Your task to perform on an android device: Open calendar and show me the third week of next month Image 0: 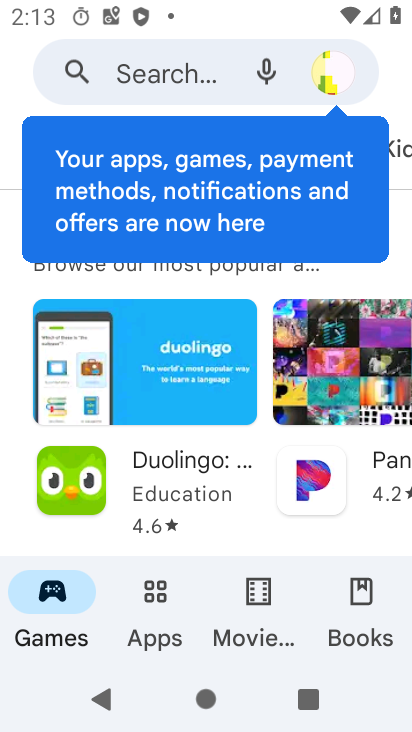
Step 0: press home button
Your task to perform on an android device: Open calendar and show me the third week of next month Image 1: 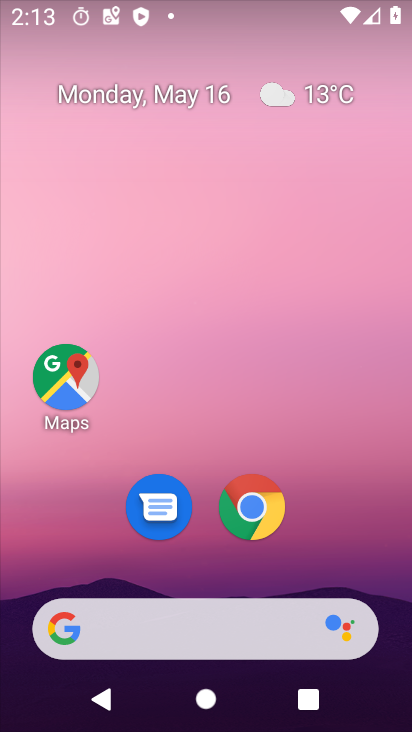
Step 1: drag from (379, 538) to (379, 108)
Your task to perform on an android device: Open calendar and show me the third week of next month Image 2: 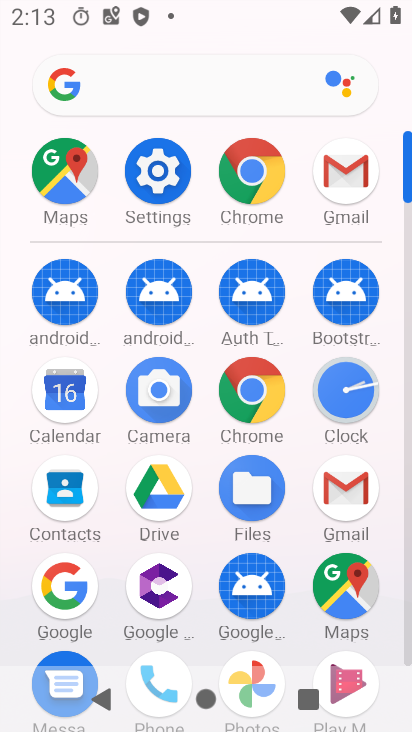
Step 2: click (52, 416)
Your task to perform on an android device: Open calendar and show me the third week of next month Image 3: 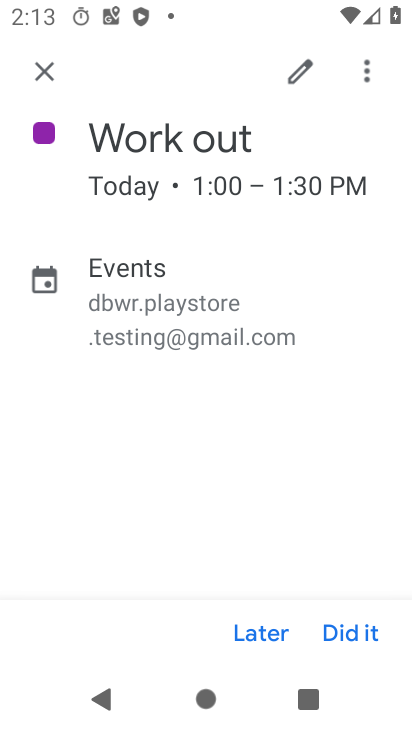
Step 3: click (45, 78)
Your task to perform on an android device: Open calendar and show me the third week of next month Image 4: 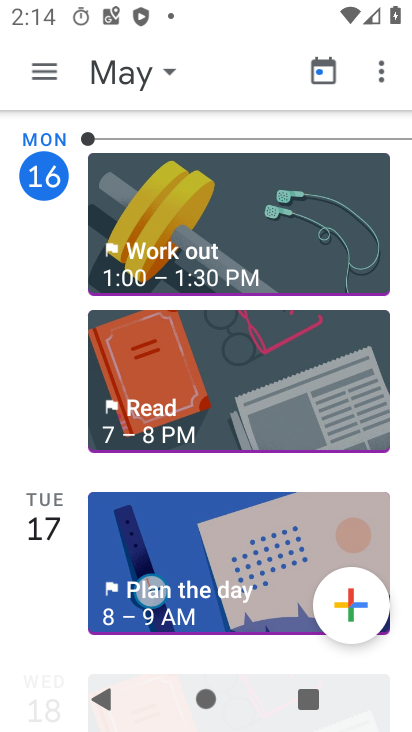
Step 4: click (165, 77)
Your task to perform on an android device: Open calendar and show me the third week of next month Image 5: 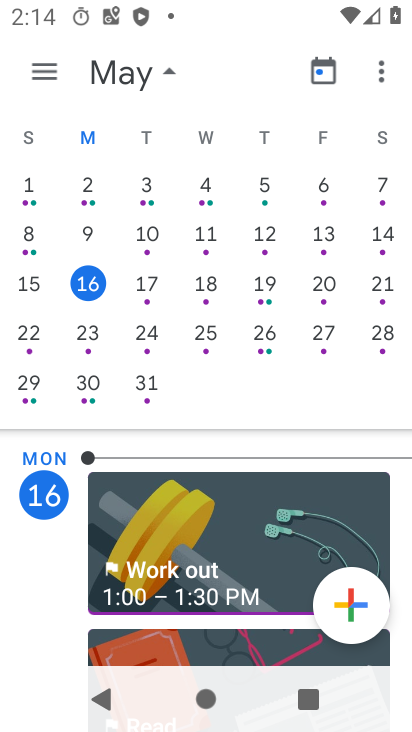
Step 5: drag from (377, 164) to (53, 179)
Your task to perform on an android device: Open calendar and show me the third week of next month Image 6: 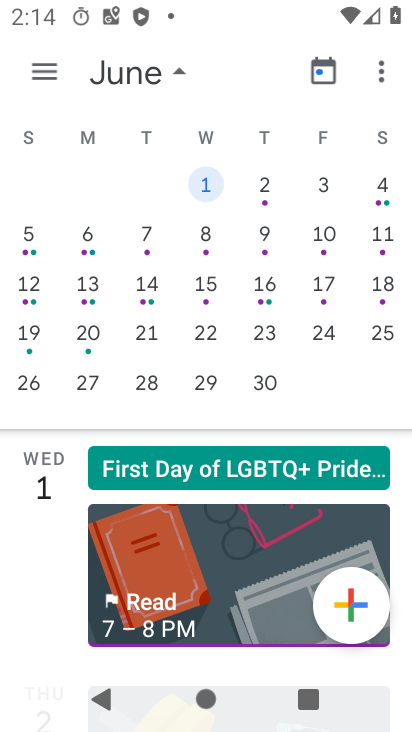
Step 6: click (209, 286)
Your task to perform on an android device: Open calendar and show me the third week of next month Image 7: 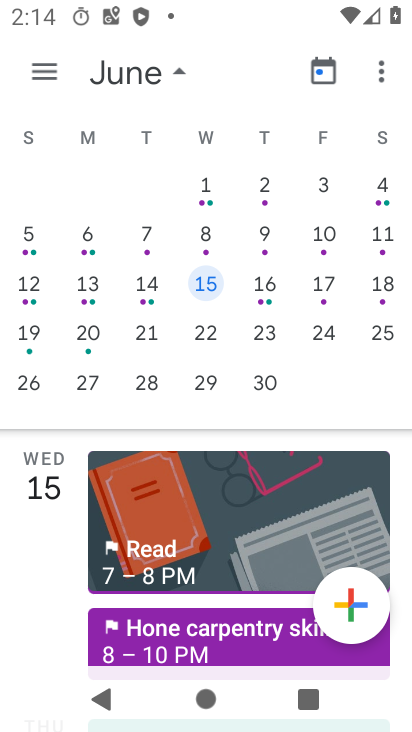
Step 7: task complete